Your task to perform on an android device: What is the recent news? Image 0: 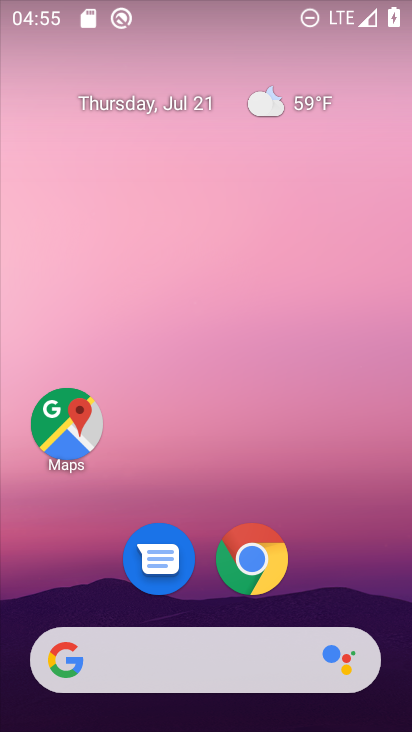
Step 0: click (173, 675)
Your task to perform on an android device: What is the recent news? Image 1: 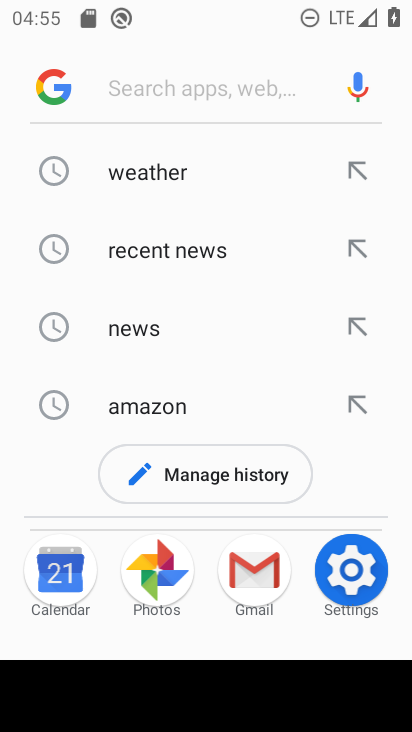
Step 1: click (105, 261)
Your task to perform on an android device: What is the recent news? Image 2: 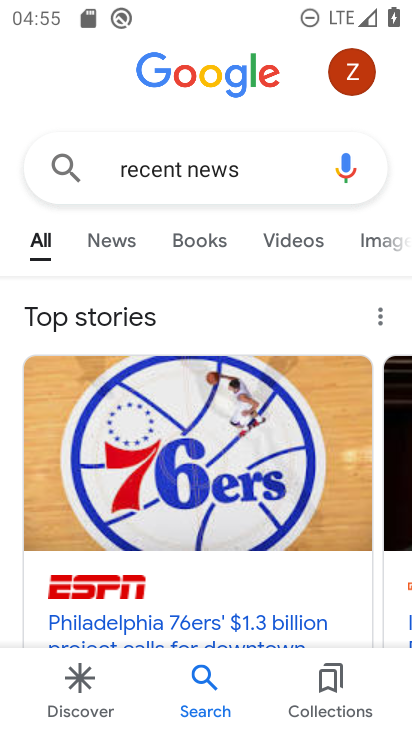
Step 2: task complete